Your task to perform on an android device: Play the last video I watched on Youtube Image 0: 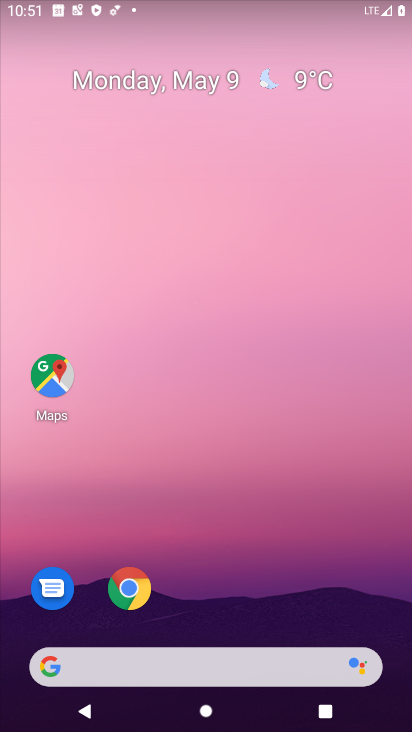
Step 0: drag from (149, 666) to (292, 41)
Your task to perform on an android device: Play the last video I watched on Youtube Image 1: 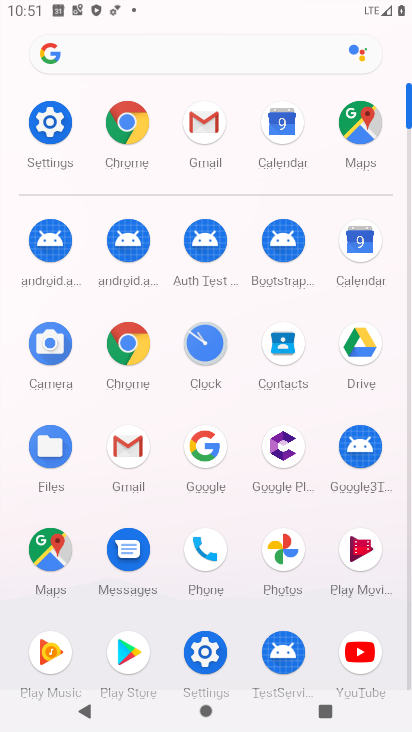
Step 1: click (370, 658)
Your task to perform on an android device: Play the last video I watched on Youtube Image 2: 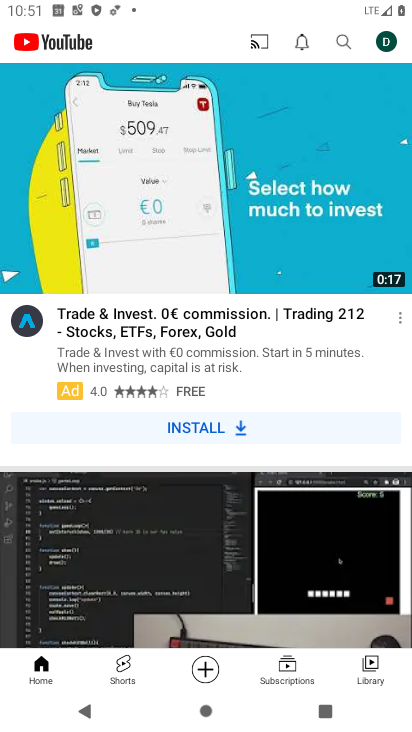
Step 2: click (366, 667)
Your task to perform on an android device: Play the last video I watched on Youtube Image 3: 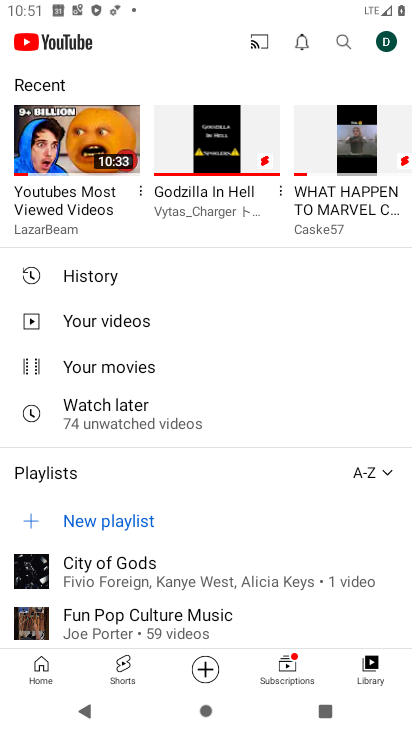
Step 3: click (66, 149)
Your task to perform on an android device: Play the last video I watched on Youtube Image 4: 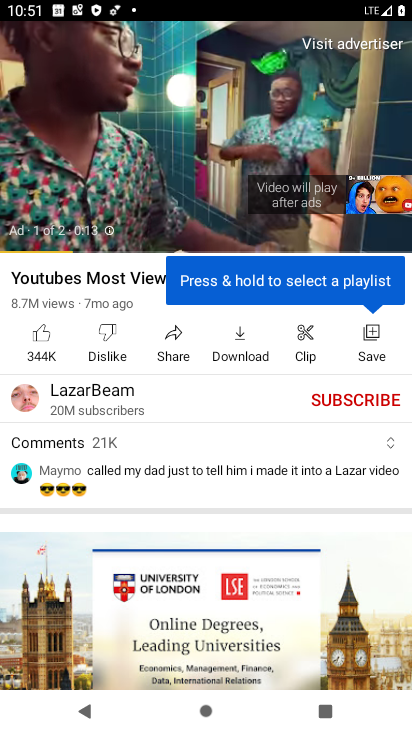
Step 4: task complete